Your task to perform on an android device: change your default location settings in chrome Image 0: 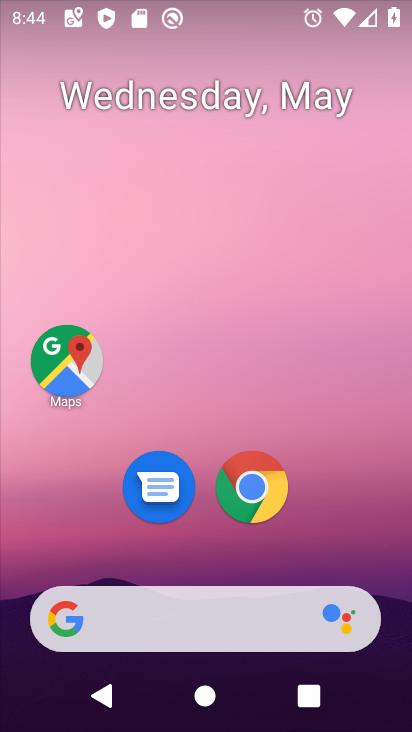
Step 0: click (250, 483)
Your task to perform on an android device: change your default location settings in chrome Image 1: 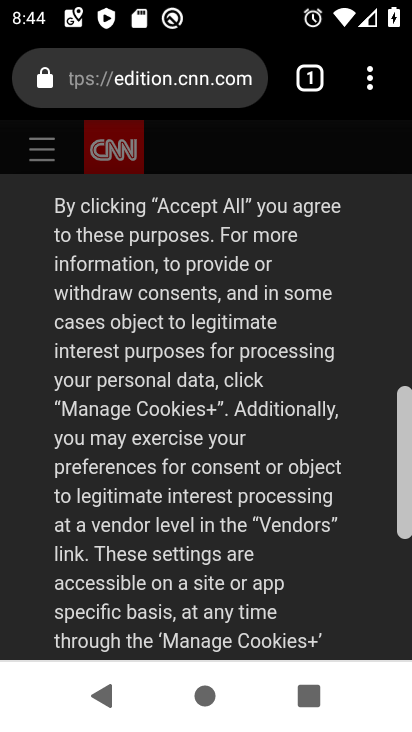
Step 1: drag from (211, 570) to (212, 177)
Your task to perform on an android device: change your default location settings in chrome Image 2: 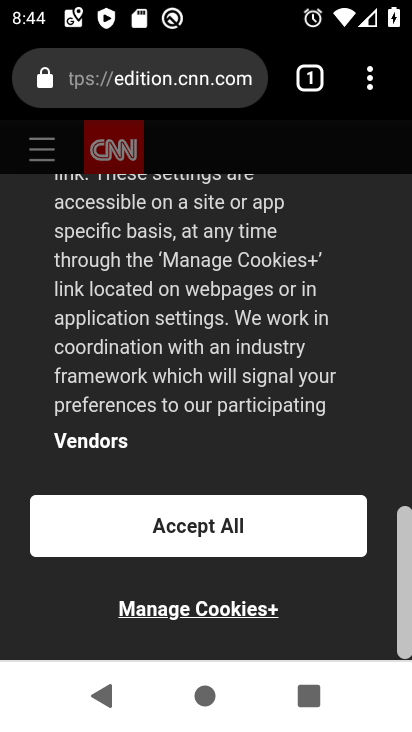
Step 2: click (368, 81)
Your task to perform on an android device: change your default location settings in chrome Image 3: 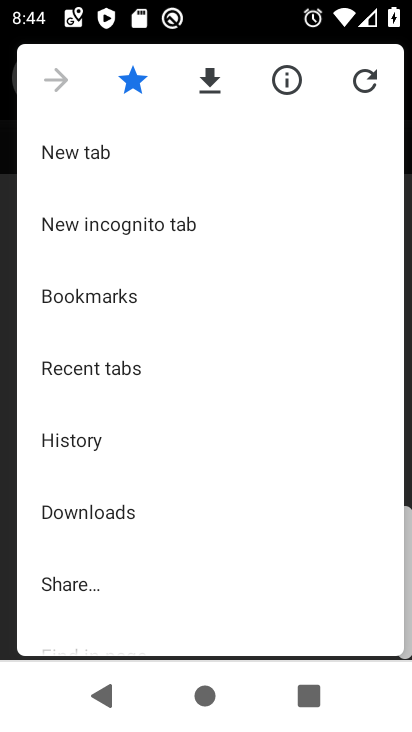
Step 3: drag from (183, 561) to (209, 102)
Your task to perform on an android device: change your default location settings in chrome Image 4: 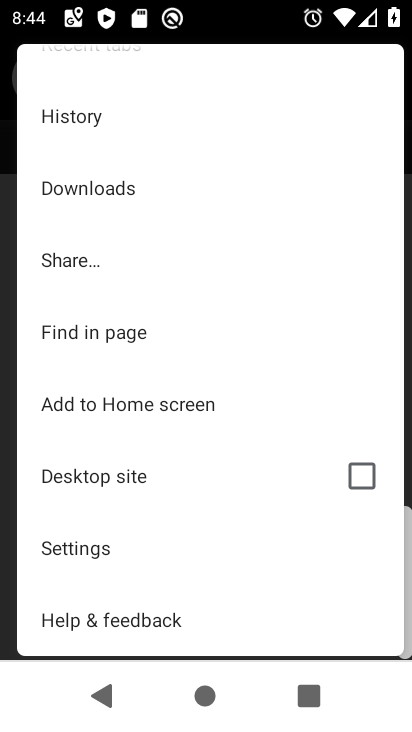
Step 4: click (116, 547)
Your task to perform on an android device: change your default location settings in chrome Image 5: 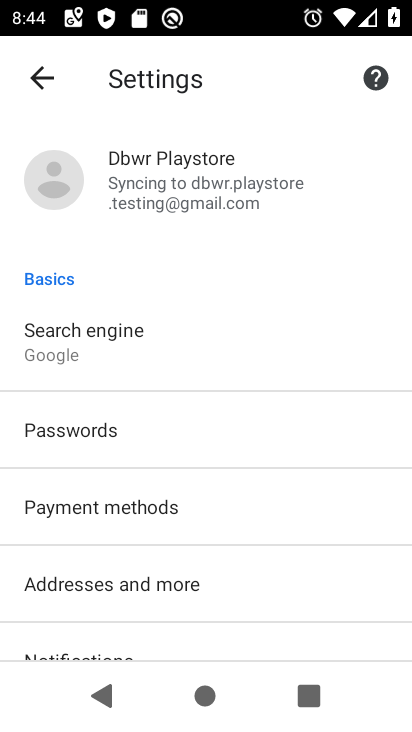
Step 5: drag from (195, 607) to (194, 189)
Your task to perform on an android device: change your default location settings in chrome Image 6: 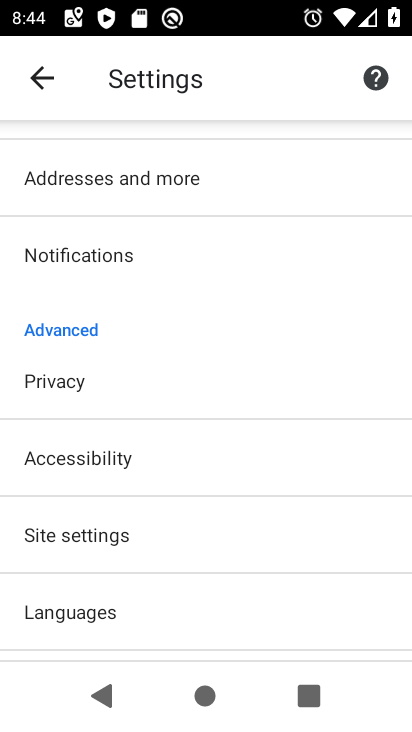
Step 6: click (146, 530)
Your task to perform on an android device: change your default location settings in chrome Image 7: 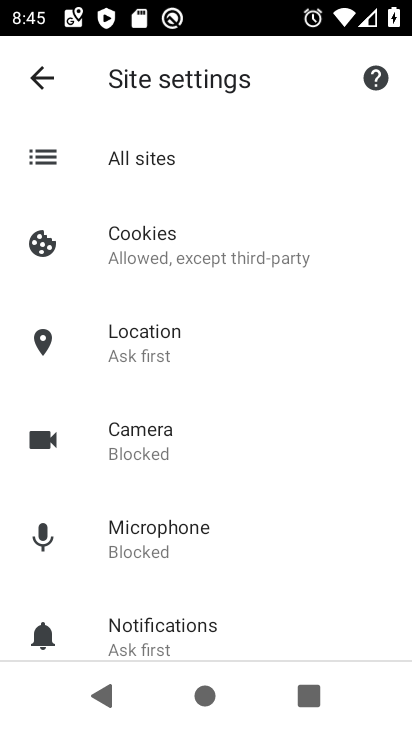
Step 7: click (183, 344)
Your task to perform on an android device: change your default location settings in chrome Image 8: 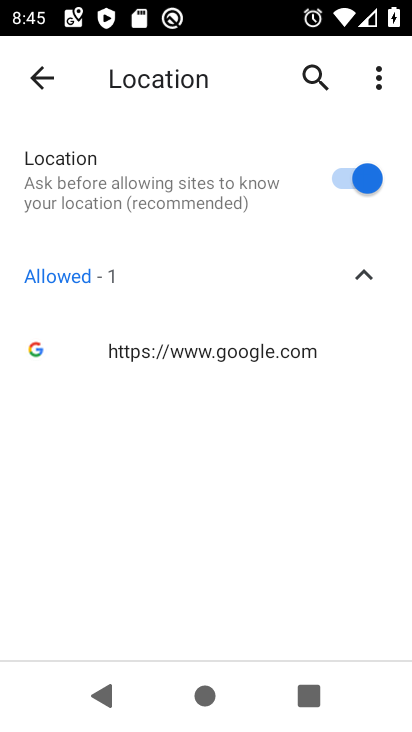
Step 8: click (356, 164)
Your task to perform on an android device: change your default location settings in chrome Image 9: 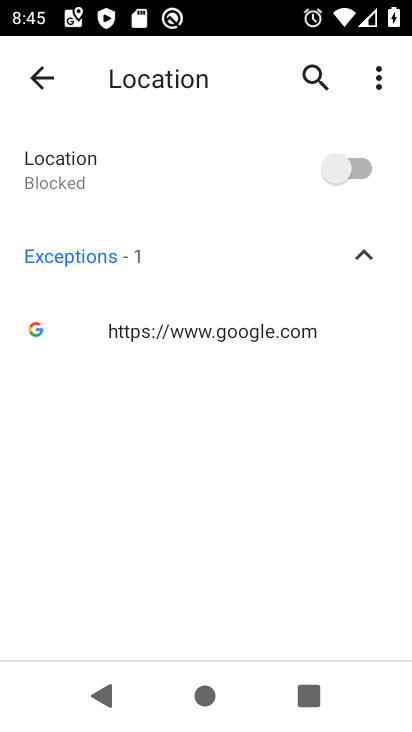
Step 9: task complete